Your task to perform on an android device: turn on javascript in the chrome app Image 0: 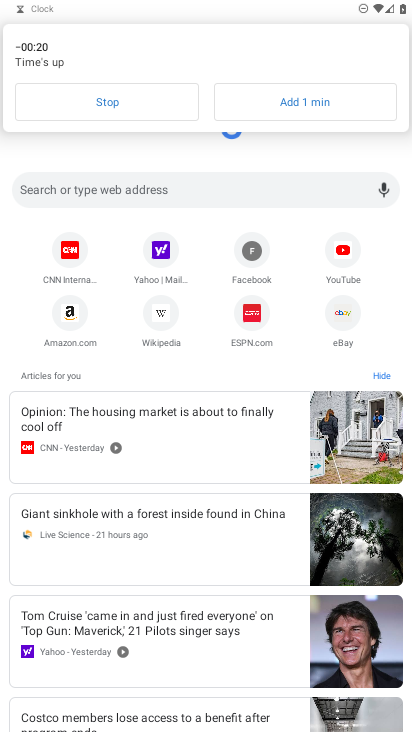
Step 0: click (156, 104)
Your task to perform on an android device: turn on javascript in the chrome app Image 1: 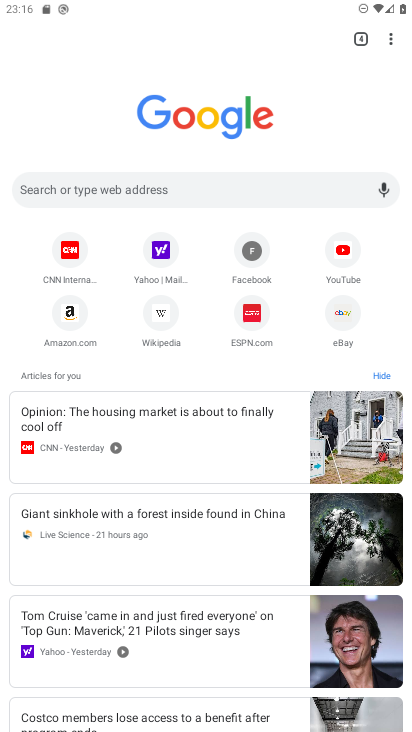
Step 1: click (391, 38)
Your task to perform on an android device: turn on javascript in the chrome app Image 2: 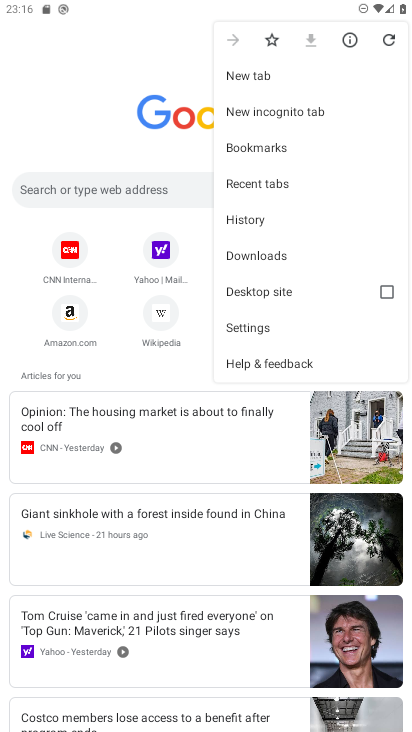
Step 2: click (246, 333)
Your task to perform on an android device: turn on javascript in the chrome app Image 3: 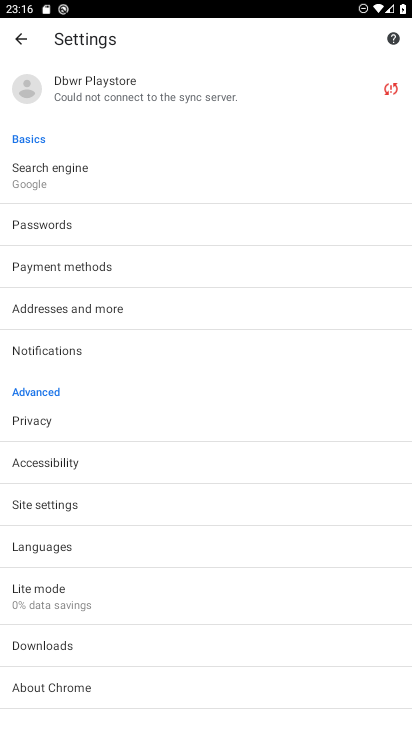
Step 3: click (110, 496)
Your task to perform on an android device: turn on javascript in the chrome app Image 4: 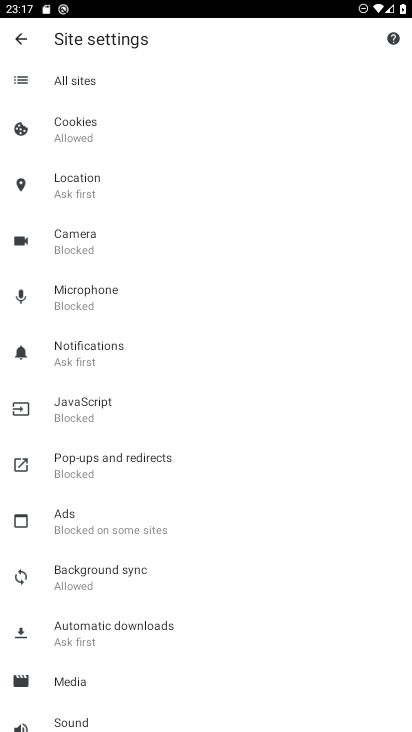
Step 4: click (82, 416)
Your task to perform on an android device: turn on javascript in the chrome app Image 5: 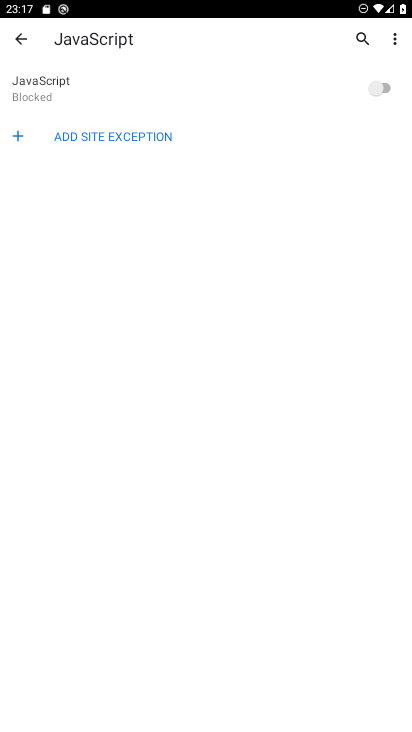
Step 5: click (376, 90)
Your task to perform on an android device: turn on javascript in the chrome app Image 6: 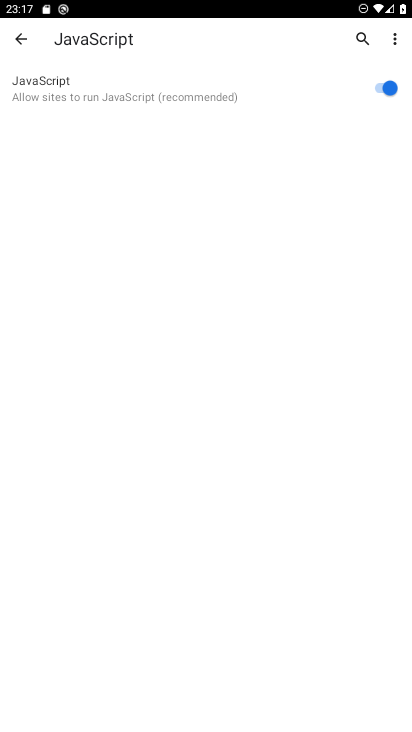
Step 6: task complete